Your task to perform on an android device: turn on the 12-hour format for clock Image 0: 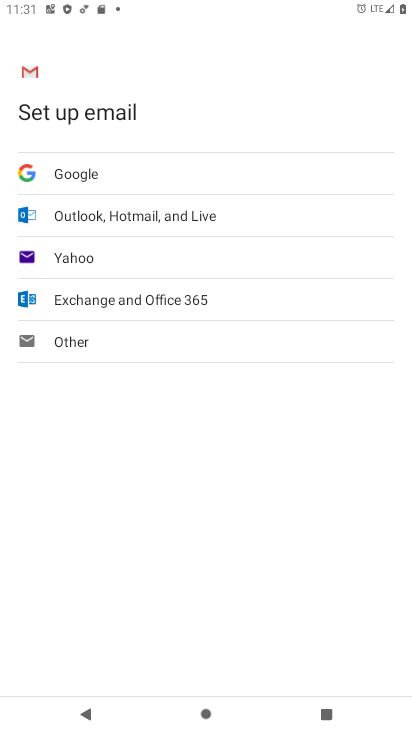
Step 0: press home button
Your task to perform on an android device: turn on the 12-hour format for clock Image 1: 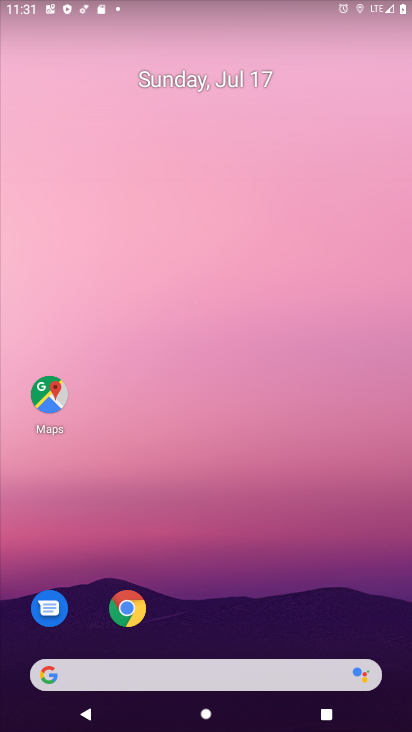
Step 1: drag from (202, 651) to (193, 75)
Your task to perform on an android device: turn on the 12-hour format for clock Image 2: 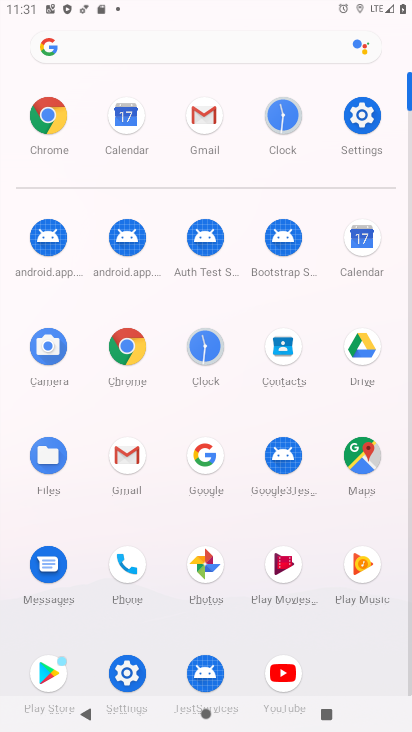
Step 2: click (200, 366)
Your task to perform on an android device: turn on the 12-hour format for clock Image 3: 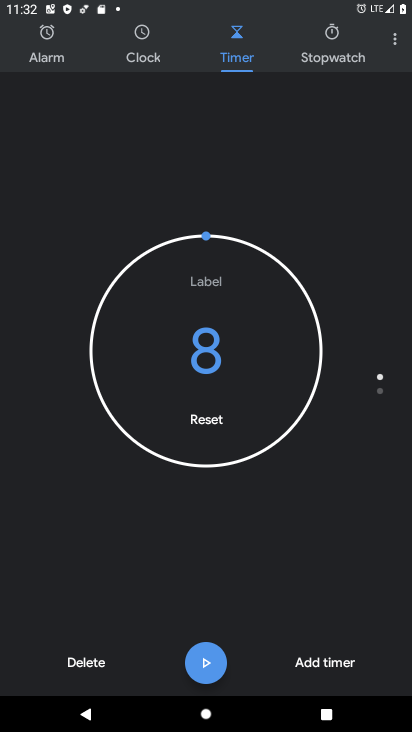
Step 3: click (389, 33)
Your task to perform on an android device: turn on the 12-hour format for clock Image 4: 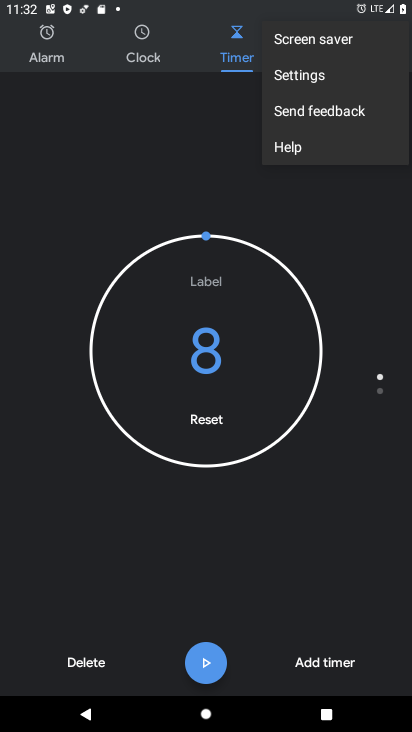
Step 4: click (314, 75)
Your task to perform on an android device: turn on the 12-hour format for clock Image 5: 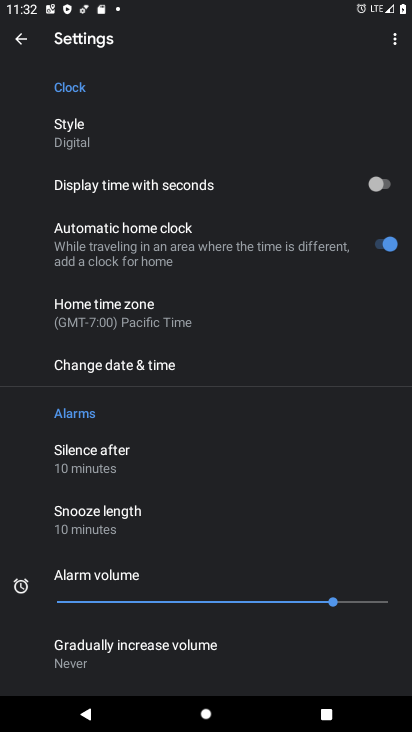
Step 5: click (146, 360)
Your task to perform on an android device: turn on the 12-hour format for clock Image 6: 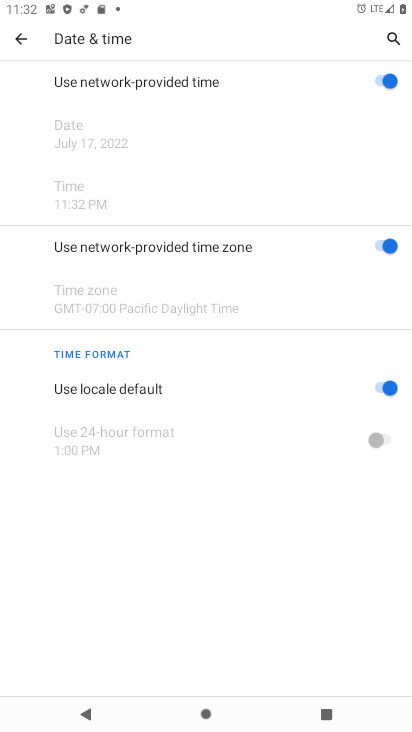
Step 6: task complete